Your task to perform on an android device: Add "logitech g pro" to the cart on ebay.com, then select checkout. Image 0: 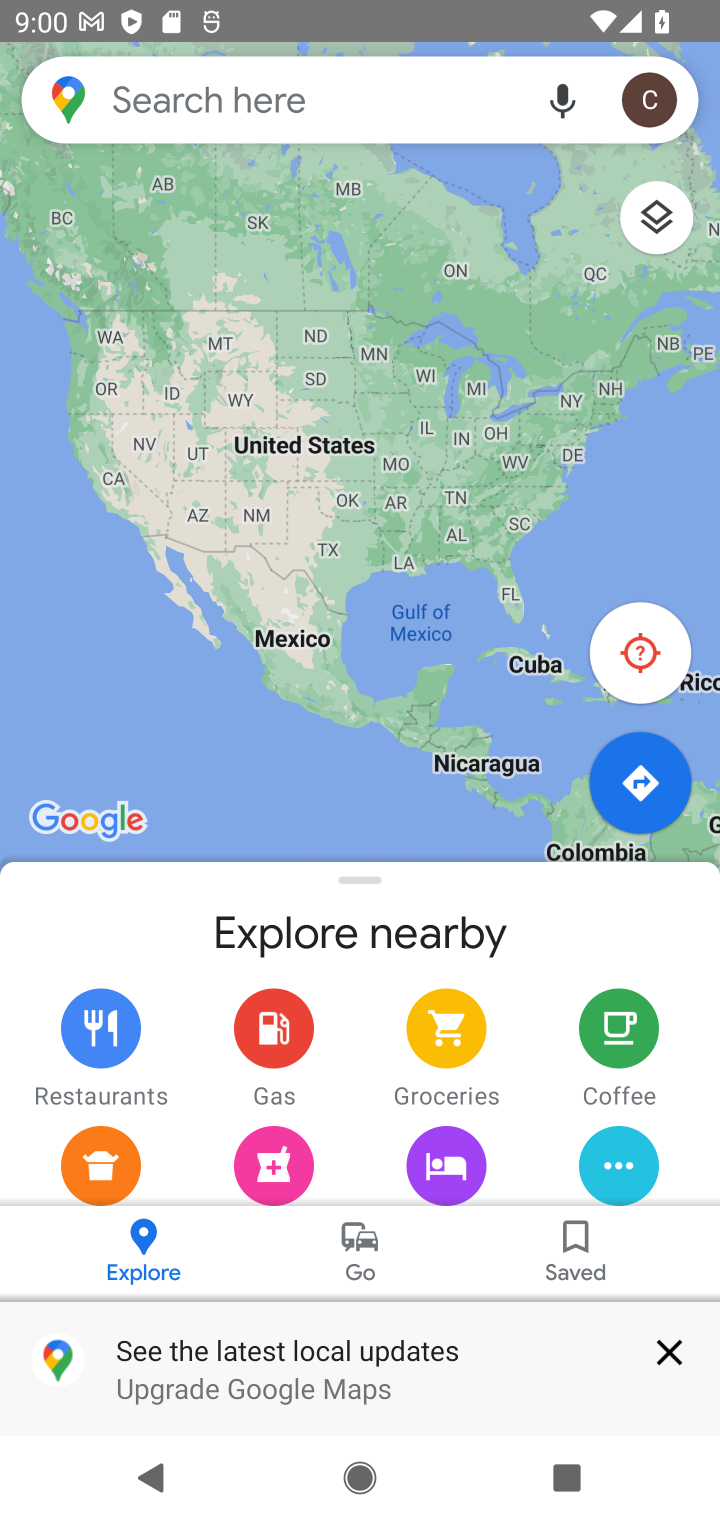
Step 0: press home button
Your task to perform on an android device: Add "logitech g pro" to the cart on ebay.com, then select checkout. Image 1: 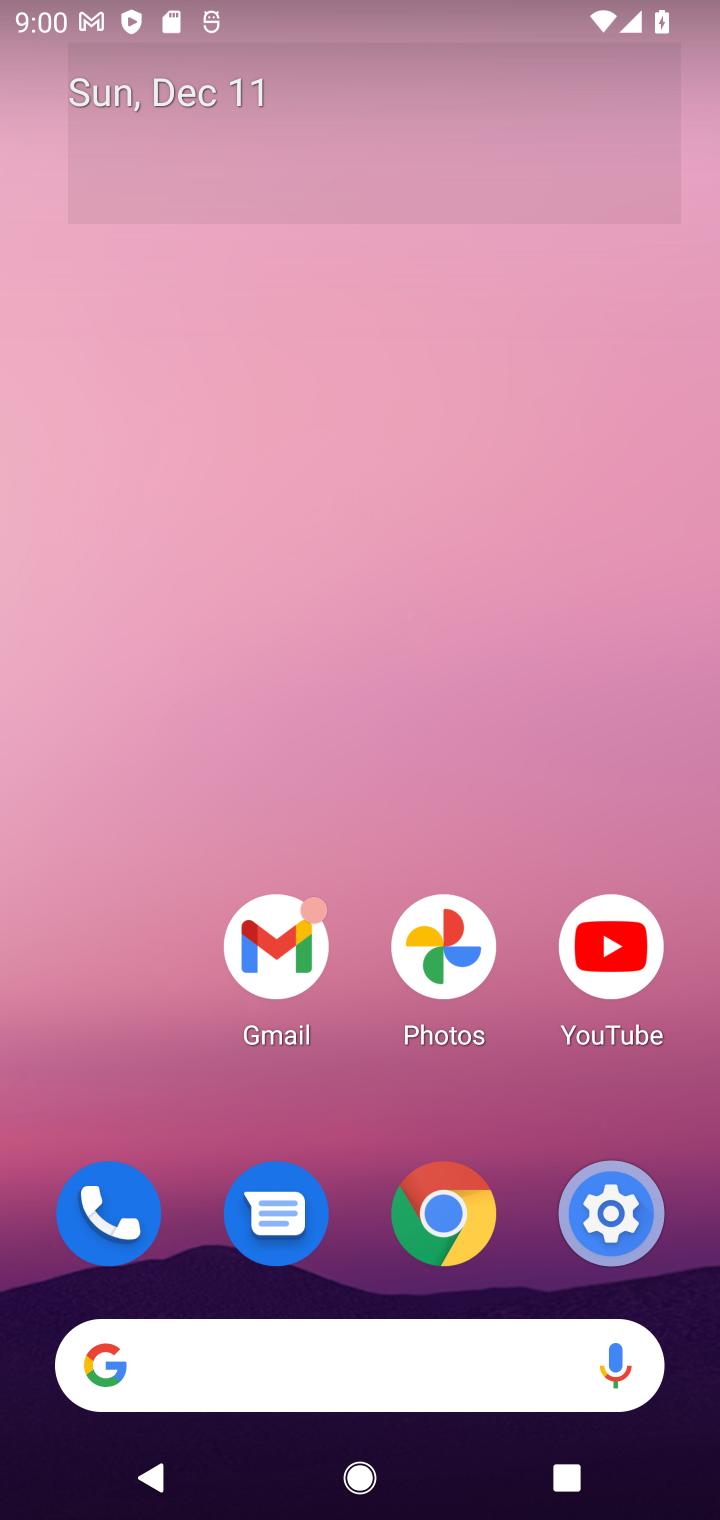
Step 1: click (361, 1330)
Your task to perform on an android device: Add "logitech g pro" to the cart on ebay.com, then select checkout. Image 2: 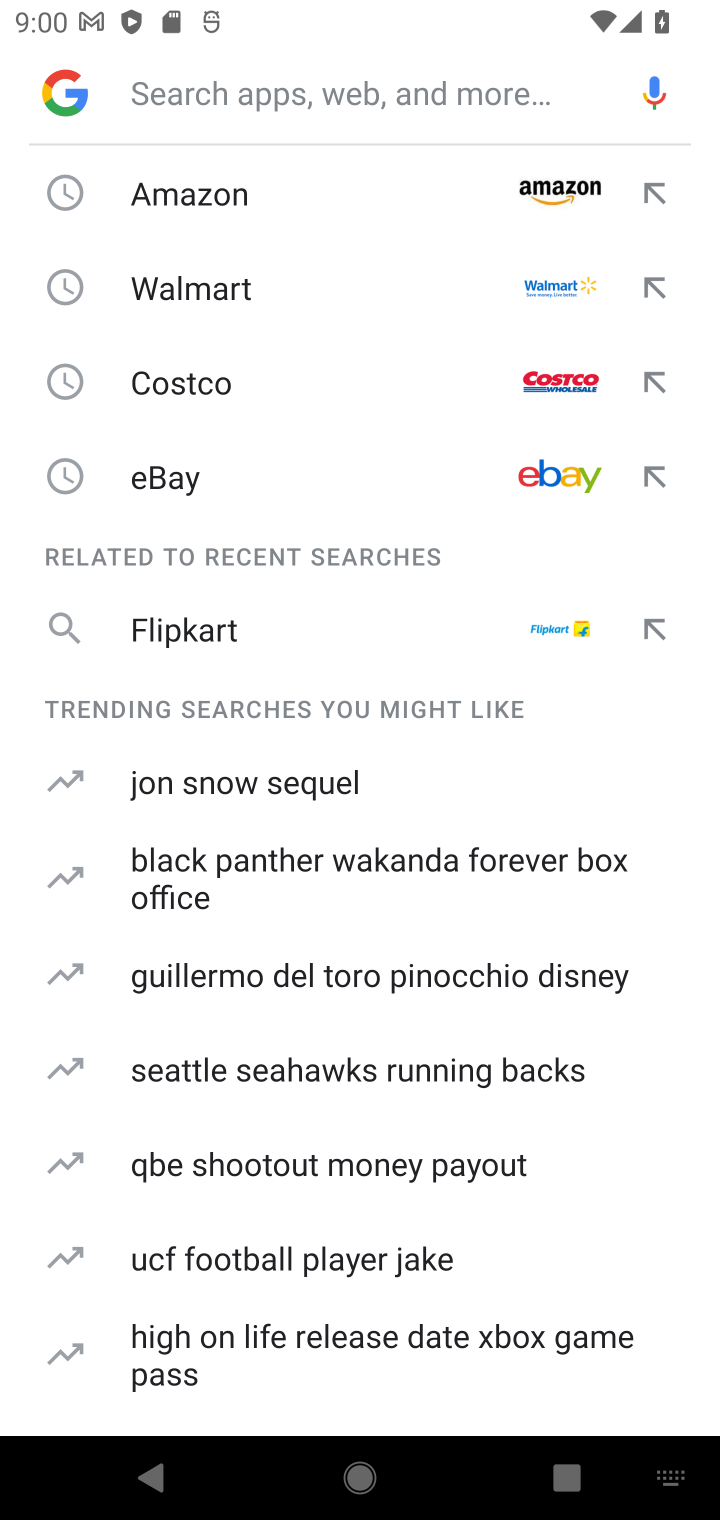
Step 2: type "logitech g pro"
Your task to perform on an android device: Add "logitech g pro" to the cart on ebay.com, then select checkout. Image 3: 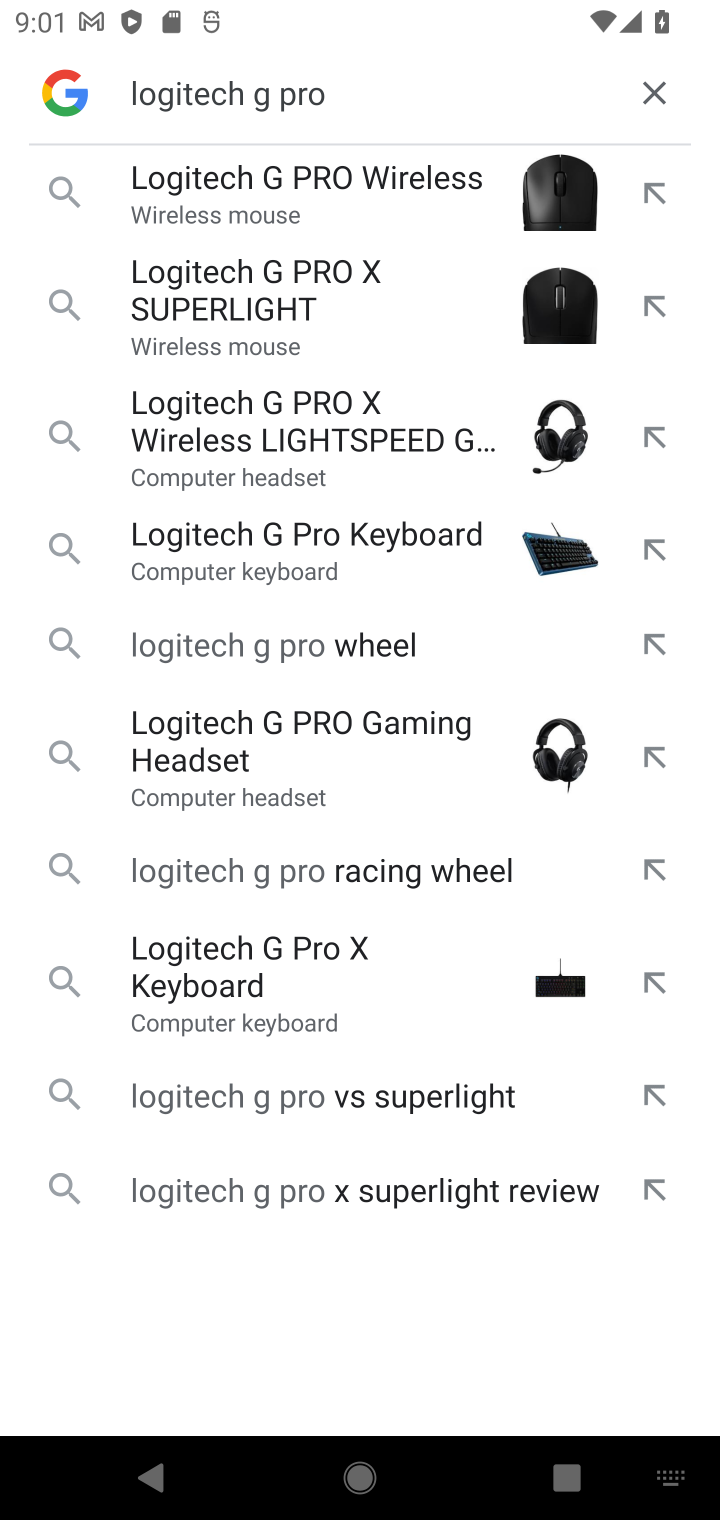
Step 3: click (643, 116)
Your task to perform on an android device: Add "logitech g pro" to the cart on ebay.com, then select checkout. Image 4: 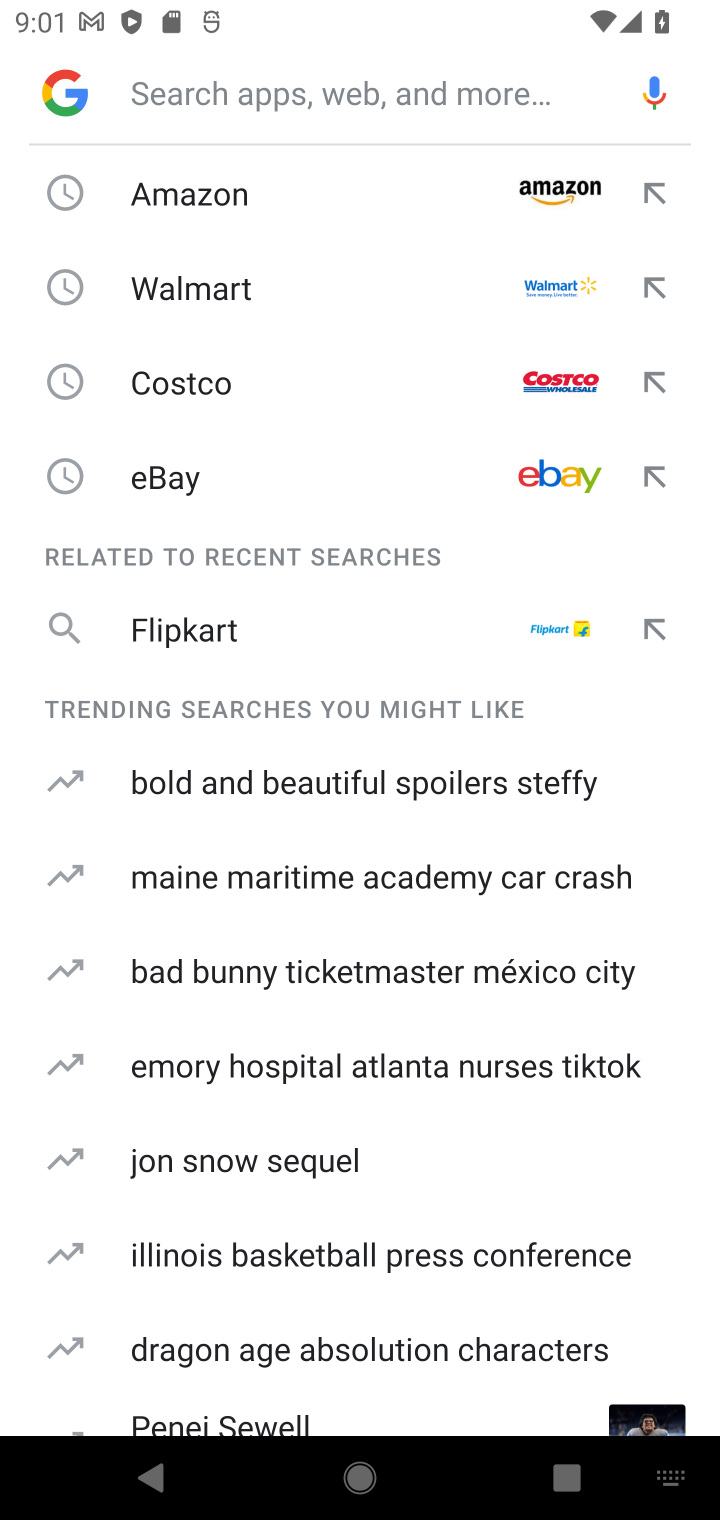
Step 4: type "ebay"
Your task to perform on an android device: Add "logitech g pro" to the cart on ebay.com, then select checkout. Image 5: 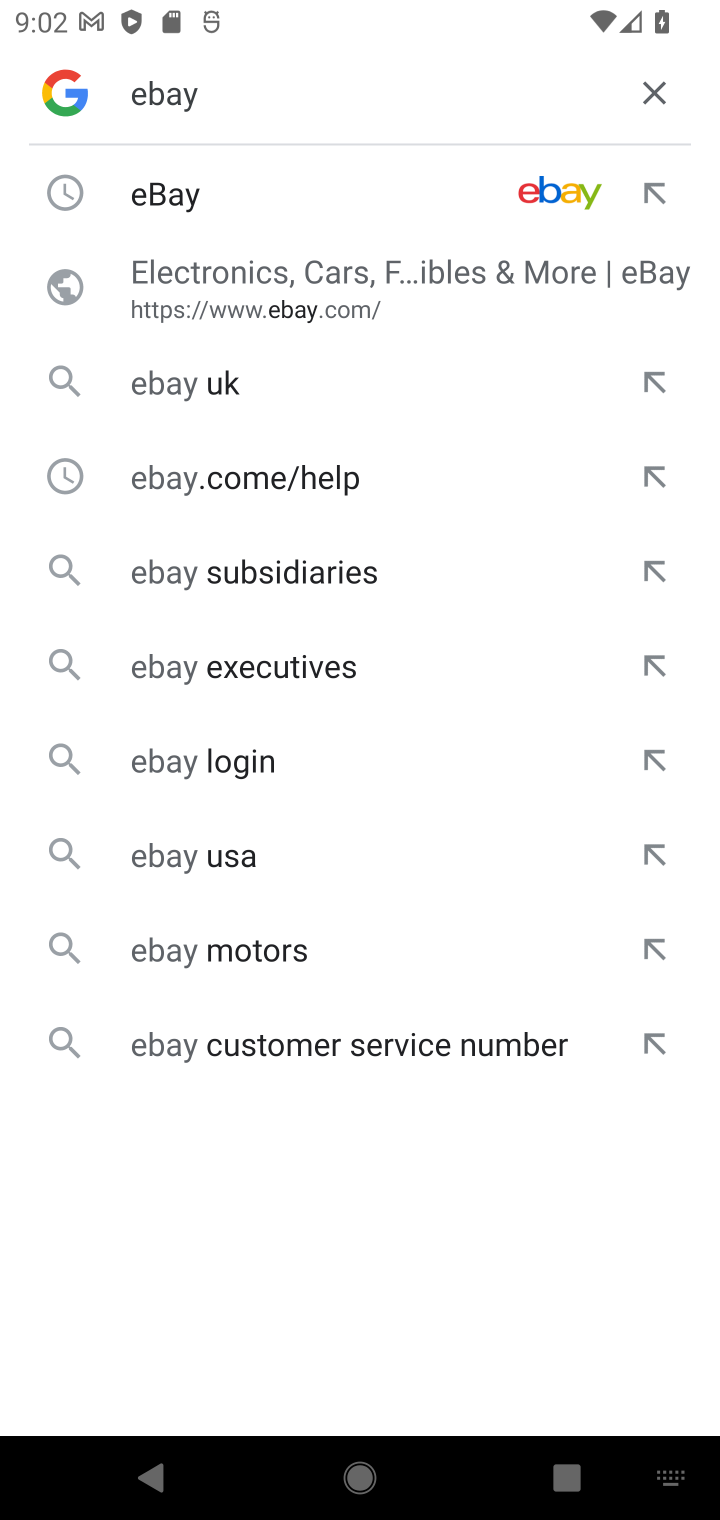
Step 5: click (205, 203)
Your task to perform on an android device: Add "logitech g pro" to the cart on ebay.com, then select checkout. Image 6: 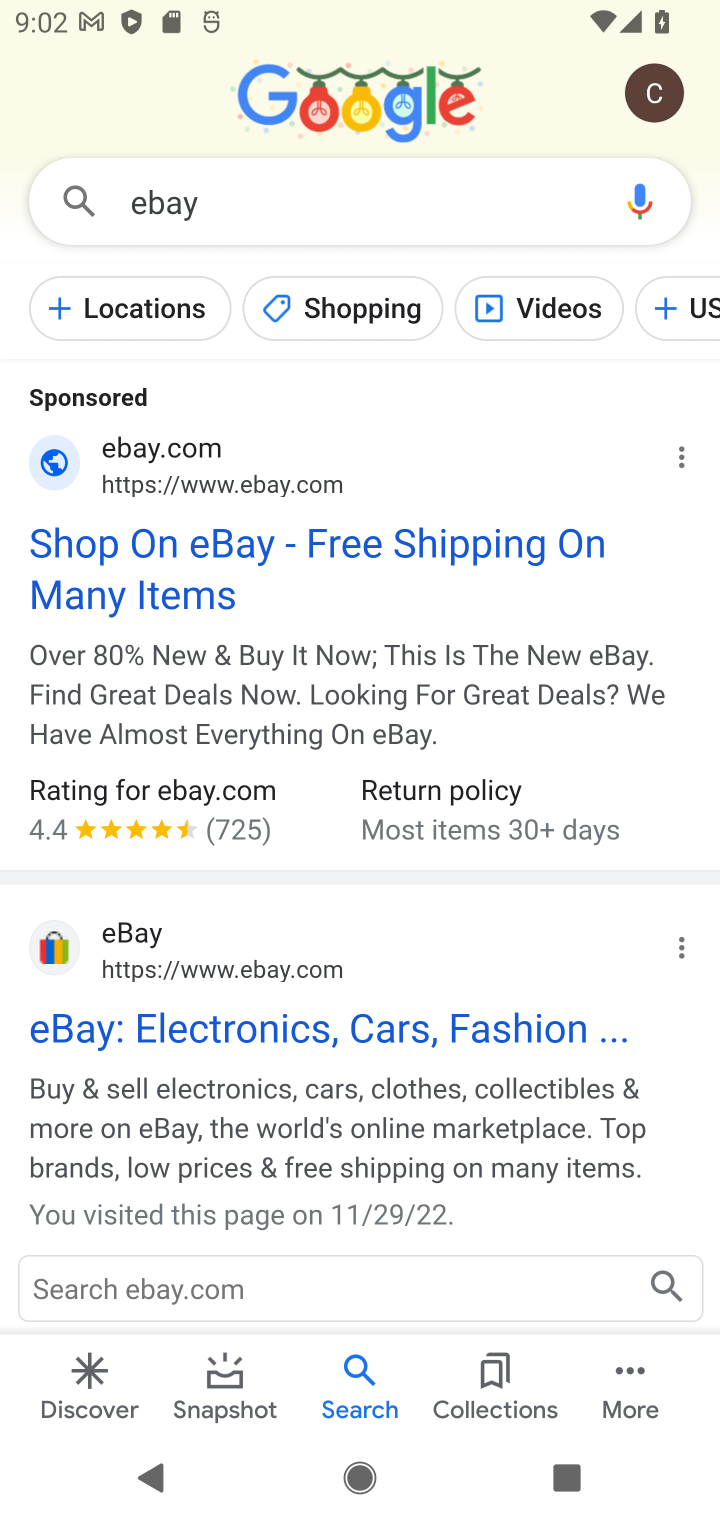
Step 6: click (116, 556)
Your task to perform on an android device: Add "logitech g pro" to the cart on ebay.com, then select checkout. Image 7: 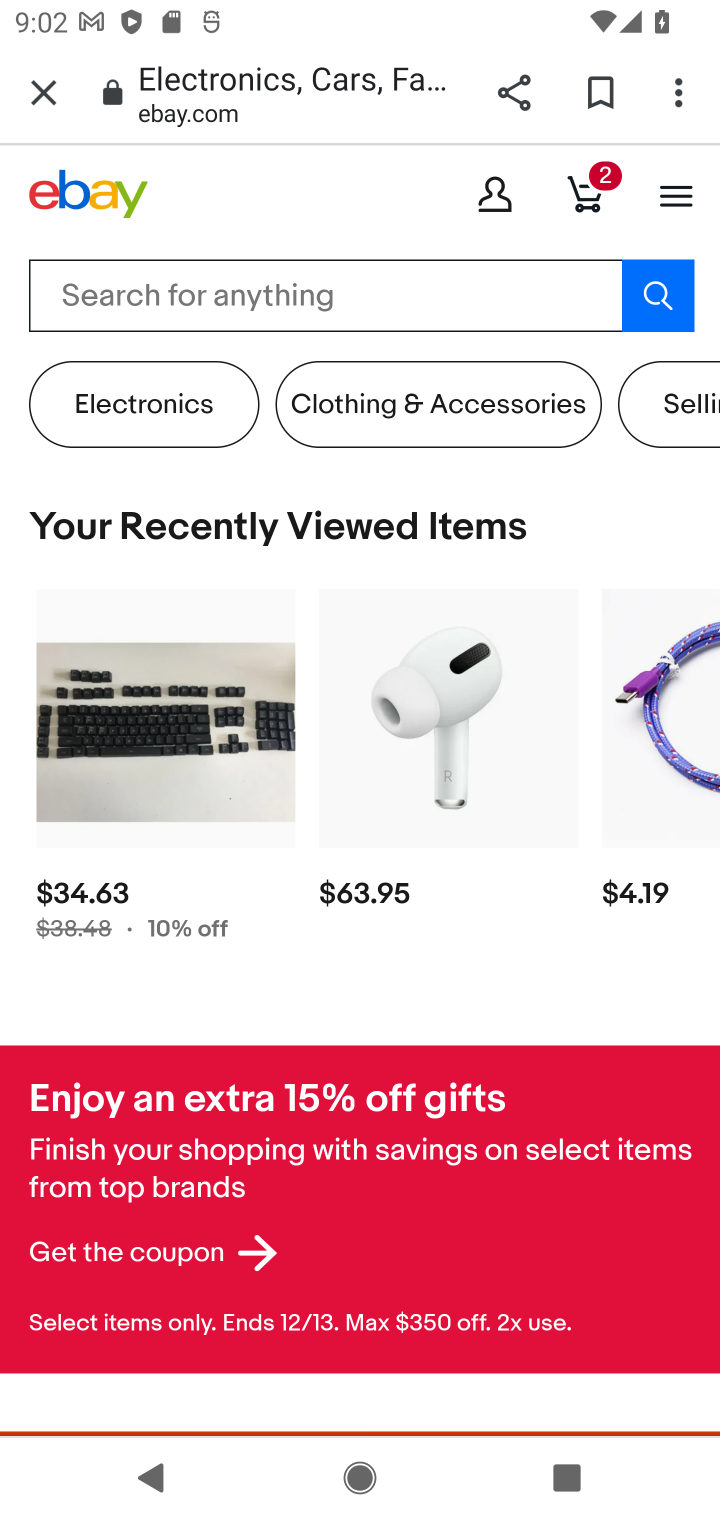
Step 7: click (323, 332)
Your task to perform on an android device: Add "logitech g pro" to the cart on ebay.com, then select checkout. Image 8: 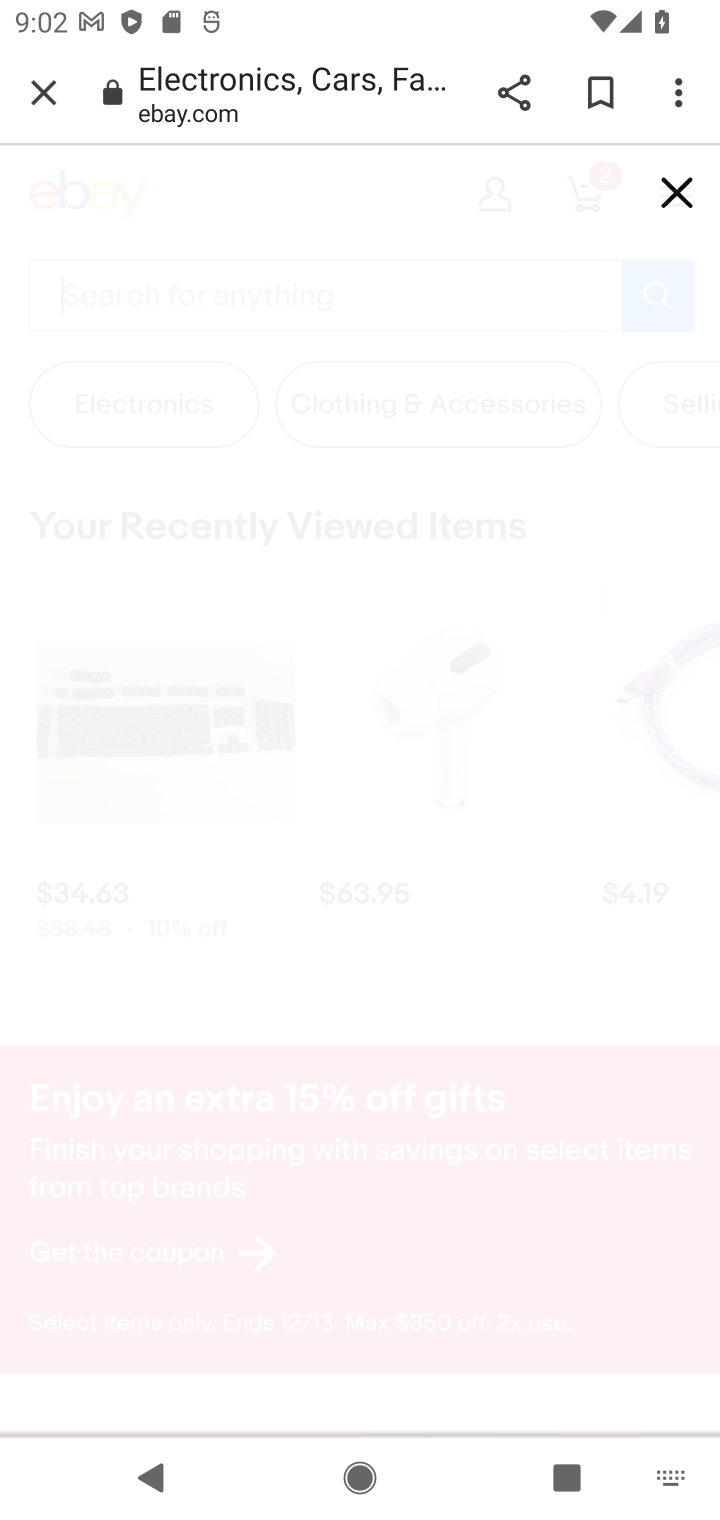
Step 8: click (341, 311)
Your task to perform on an android device: Add "logitech g pro" to the cart on ebay.com, then select checkout. Image 9: 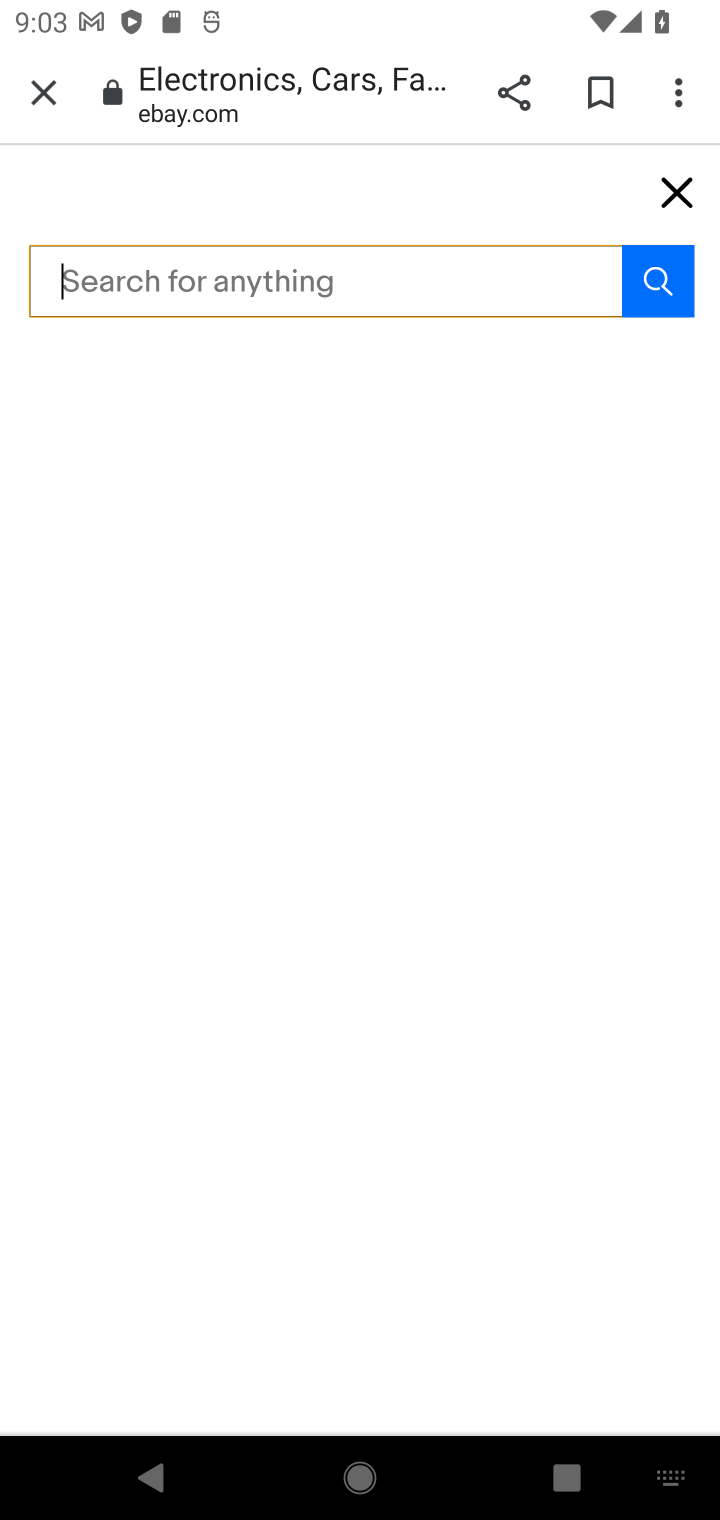
Step 9: type "logitech g pro"
Your task to perform on an android device: Add "logitech g pro" to the cart on ebay.com, then select checkout. Image 10: 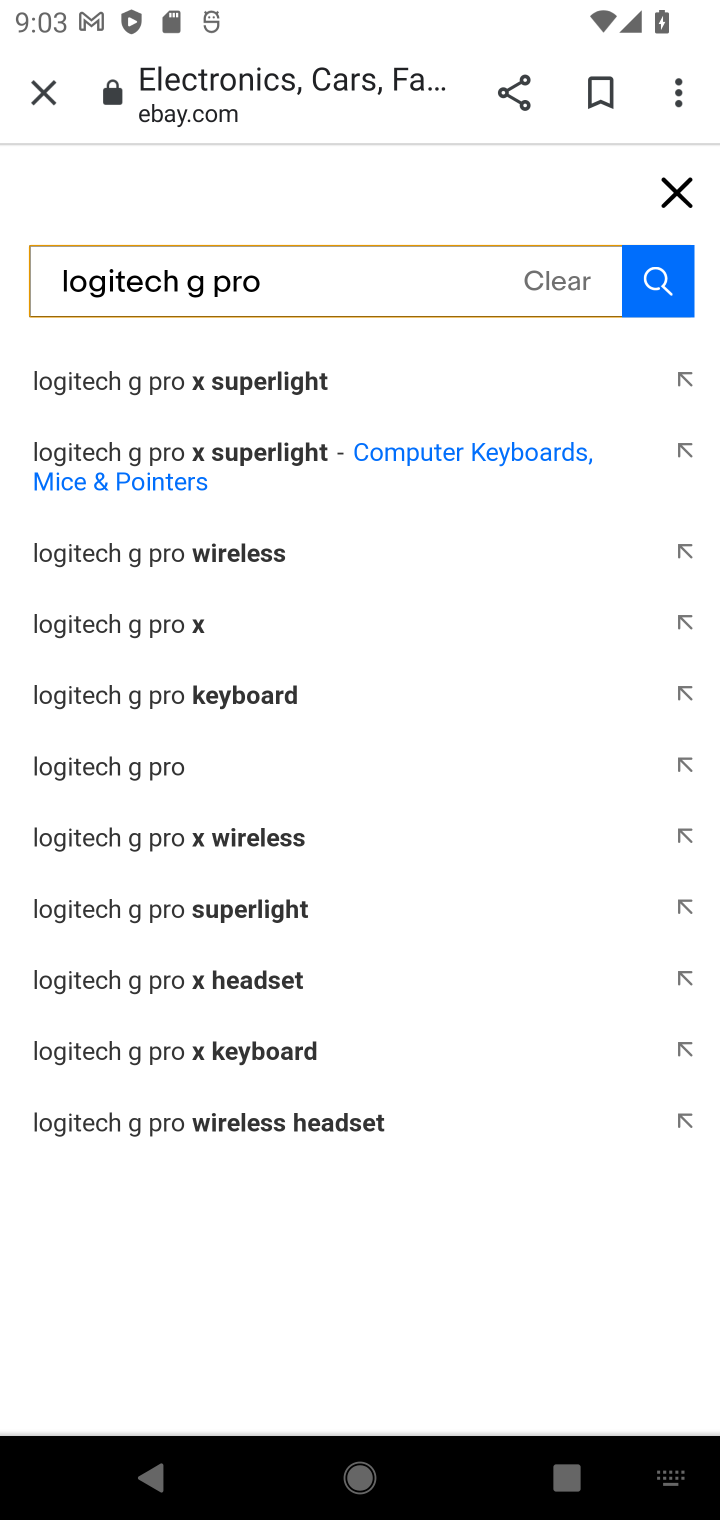
Step 10: click (631, 292)
Your task to perform on an android device: Add "logitech g pro" to the cart on ebay.com, then select checkout. Image 11: 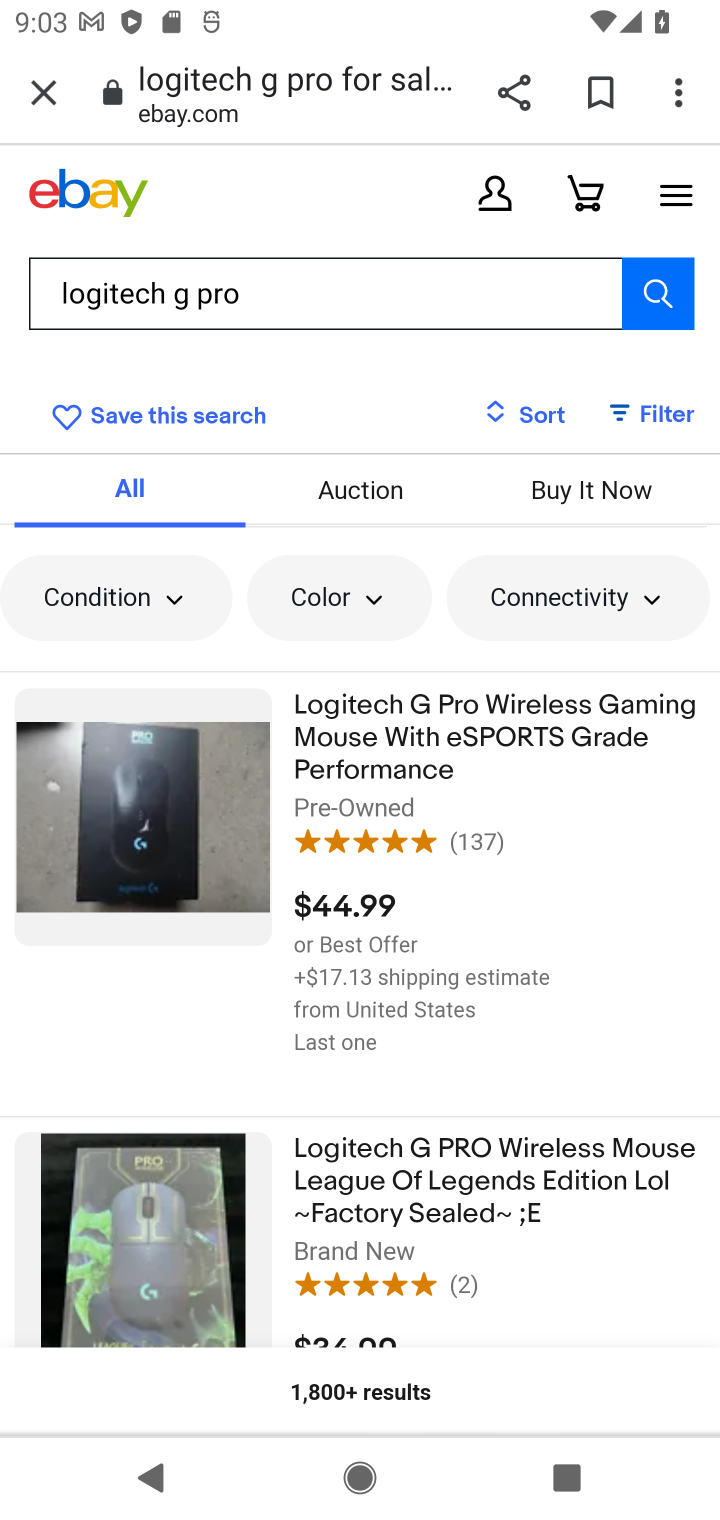
Step 11: click (384, 736)
Your task to perform on an android device: Add "logitech g pro" to the cart on ebay.com, then select checkout. Image 12: 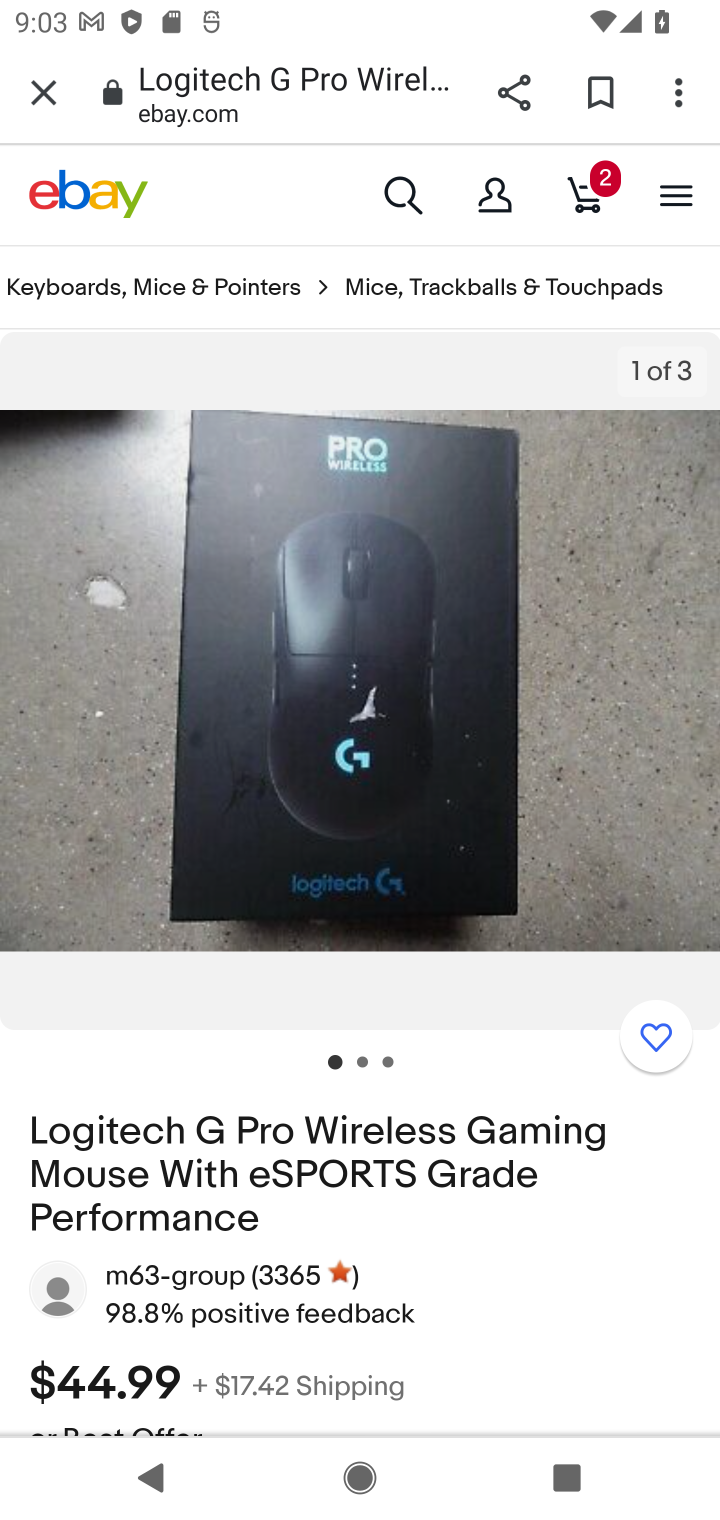
Step 12: drag from (352, 1213) to (548, 483)
Your task to perform on an android device: Add "logitech g pro" to the cart on ebay.com, then select checkout. Image 13: 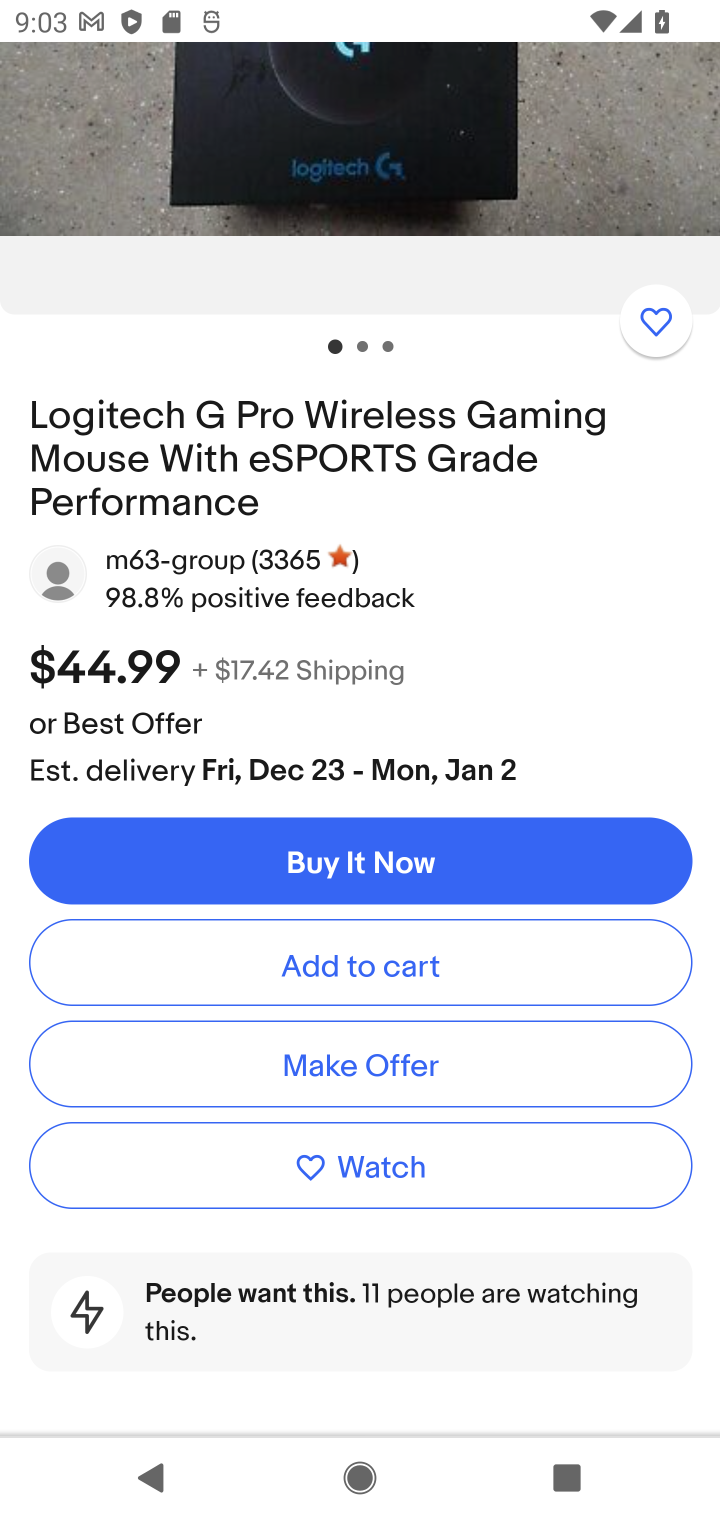
Step 13: click (401, 977)
Your task to perform on an android device: Add "logitech g pro" to the cart on ebay.com, then select checkout. Image 14: 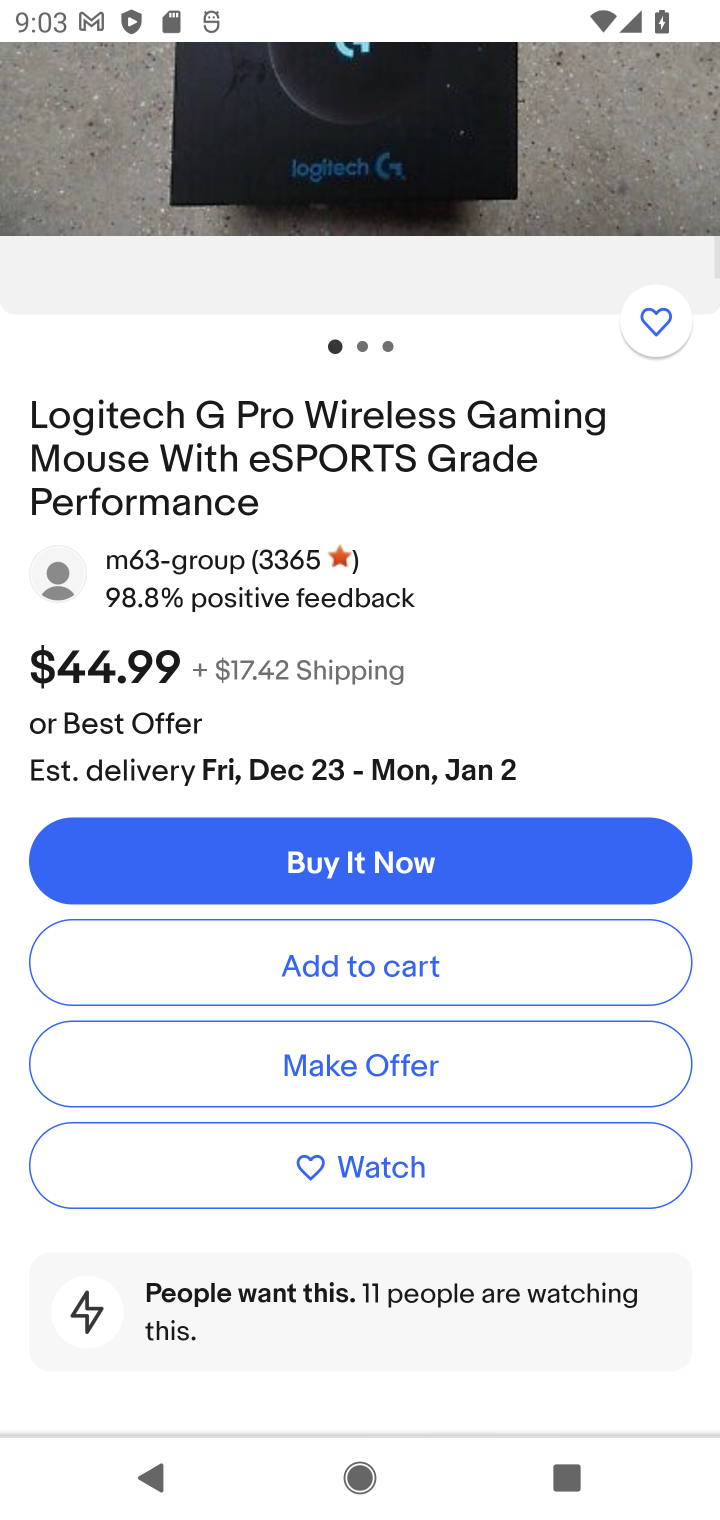
Step 14: task complete